Your task to perform on an android device: Is it going to rain this weekend? Image 0: 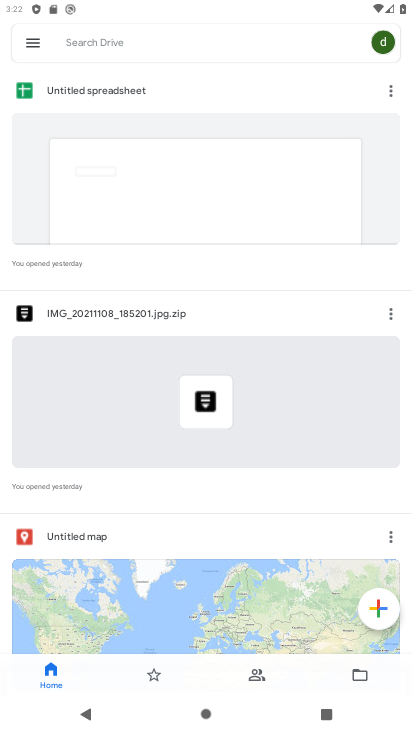
Step 0: press home button
Your task to perform on an android device: Is it going to rain this weekend? Image 1: 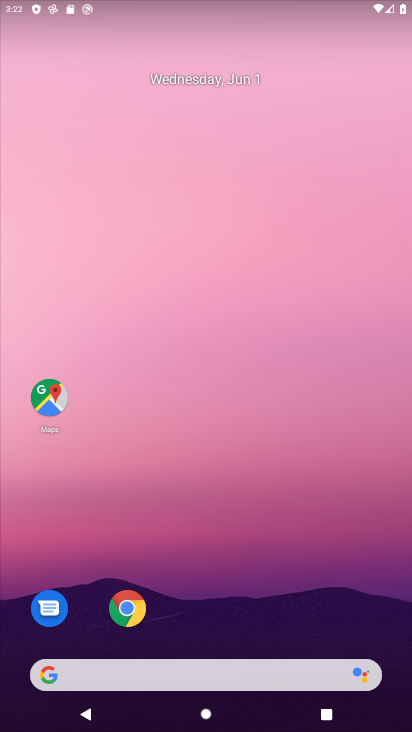
Step 1: drag from (225, 659) to (307, 32)
Your task to perform on an android device: Is it going to rain this weekend? Image 2: 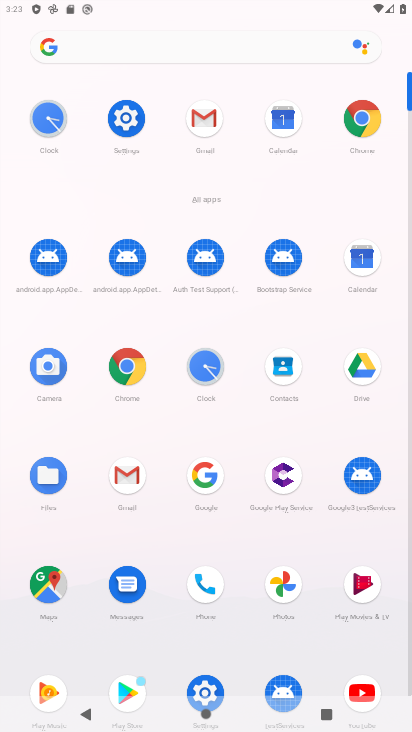
Step 2: click (200, 480)
Your task to perform on an android device: Is it going to rain this weekend? Image 3: 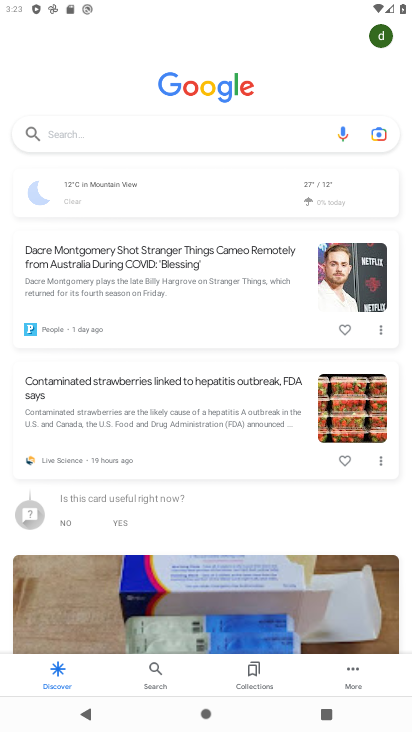
Step 3: click (42, 195)
Your task to perform on an android device: Is it going to rain this weekend? Image 4: 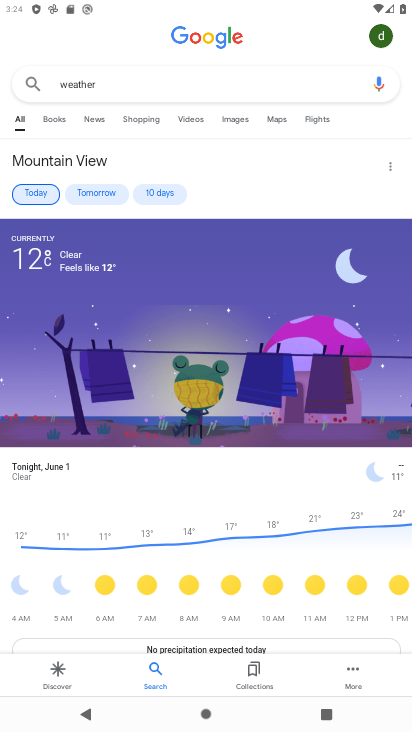
Step 4: click (142, 193)
Your task to perform on an android device: Is it going to rain this weekend? Image 5: 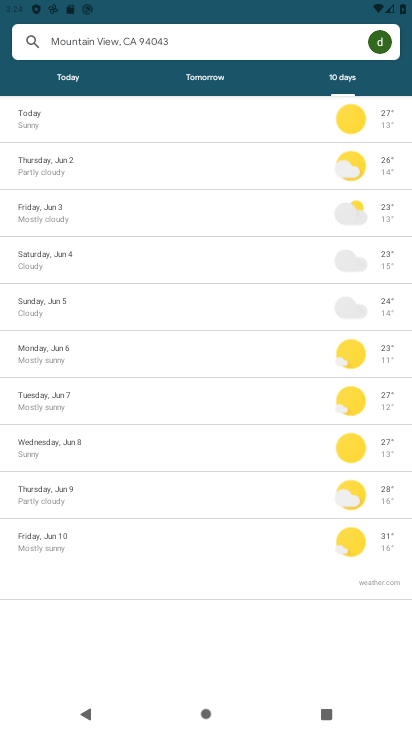
Step 5: task complete